Your task to perform on an android device: turn on showing notifications on the lock screen Image 0: 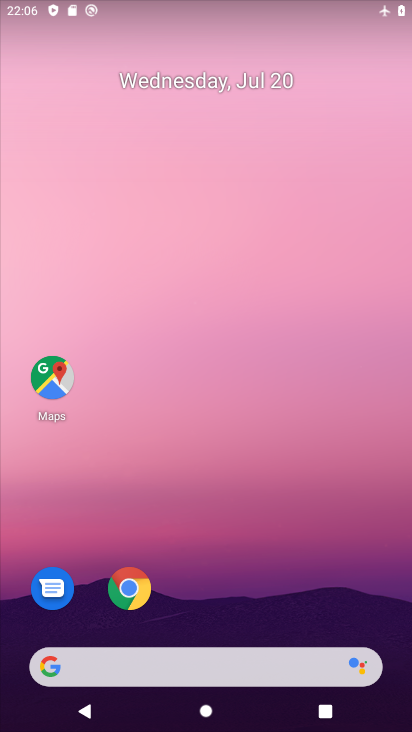
Step 0: drag from (377, 625) to (334, 36)
Your task to perform on an android device: turn on showing notifications on the lock screen Image 1: 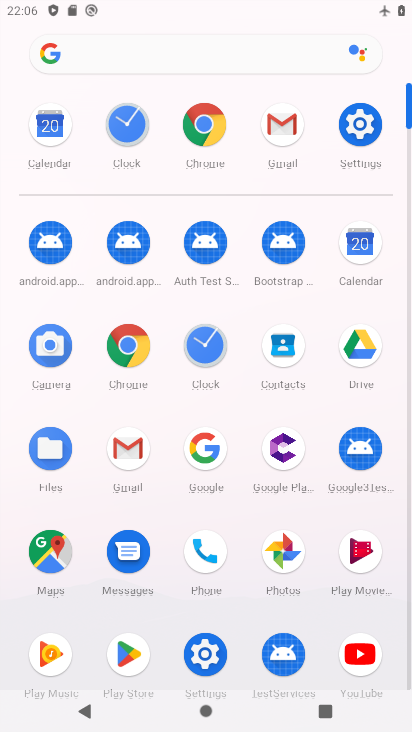
Step 1: click (205, 653)
Your task to perform on an android device: turn on showing notifications on the lock screen Image 2: 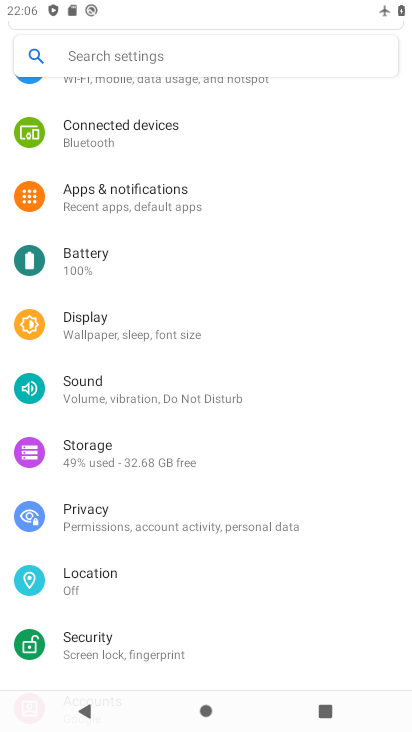
Step 2: click (105, 197)
Your task to perform on an android device: turn on showing notifications on the lock screen Image 3: 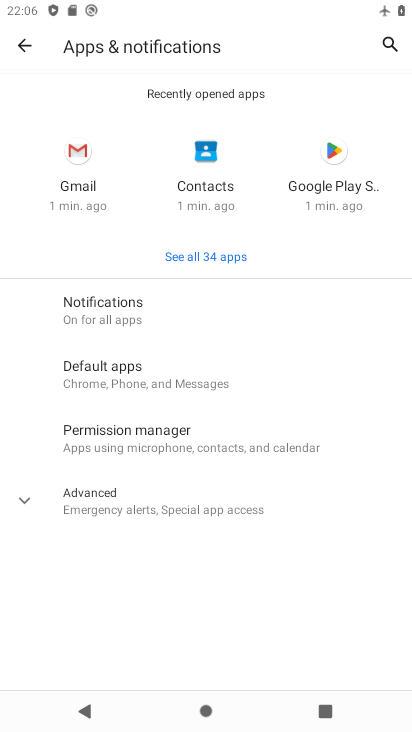
Step 3: click (92, 302)
Your task to perform on an android device: turn on showing notifications on the lock screen Image 4: 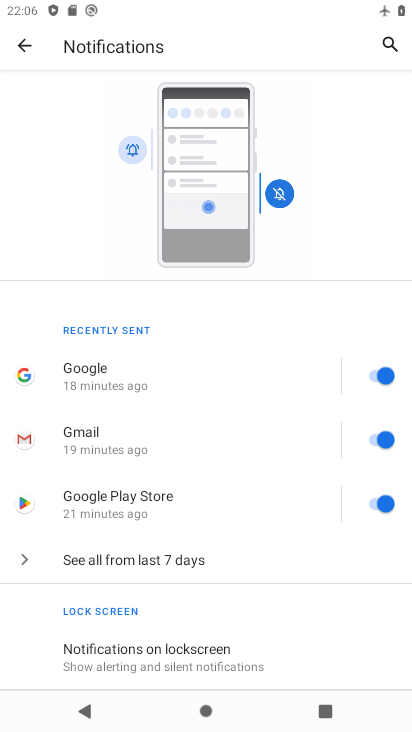
Step 4: drag from (241, 631) to (260, 223)
Your task to perform on an android device: turn on showing notifications on the lock screen Image 5: 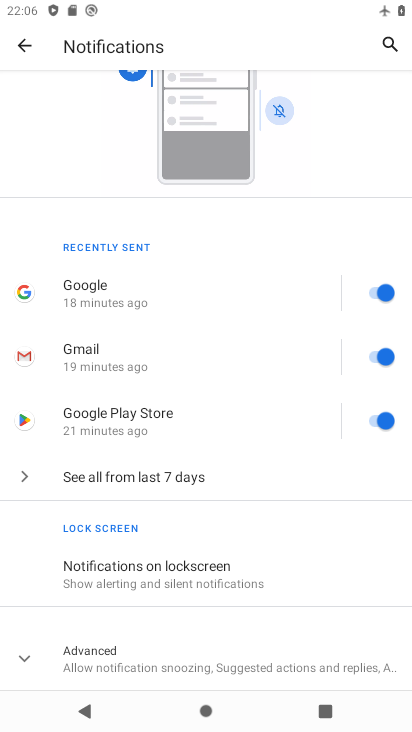
Step 5: click (164, 569)
Your task to perform on an android device: turn on showing notifications on the lock screen Image 6: 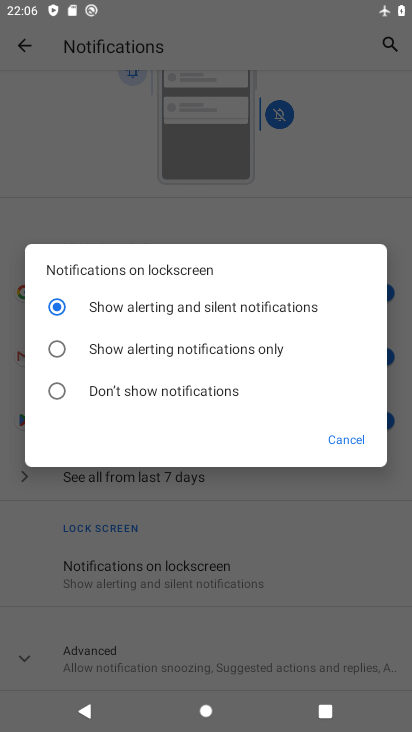
Step 6: task complete